Your task to perform on an android device: Open the phone app and click the voicemail tab. Image 0: 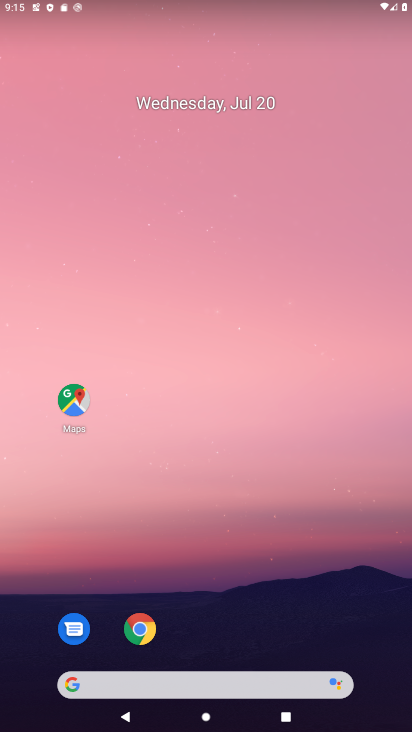
Step 0: drag from (284, 696) to (292, 5)
Your task to perform on an android device: Open the phone app and click the voicemail tab. Image 1: 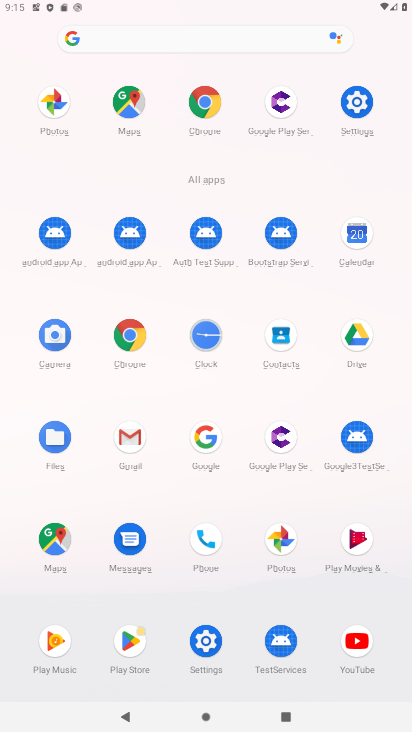
Step 1: click (222, 530)
Your task to perform on an android device: Open the phone app and click the voicemail tab. Image 2: 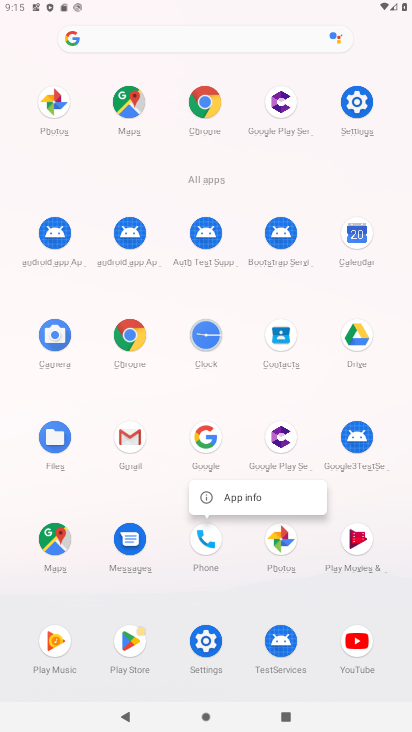
Step 2: click (222, 530)
Your task to perform on an android device: Open the phone app and click the voicemail tab. Image 3: 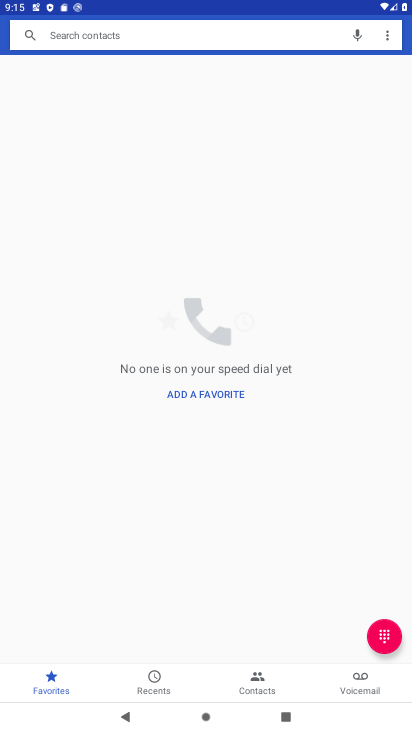
Step 3: click (354, 684)
Your task to perform on an android device: Open the phone app and click the voicemail tab. Image 4: 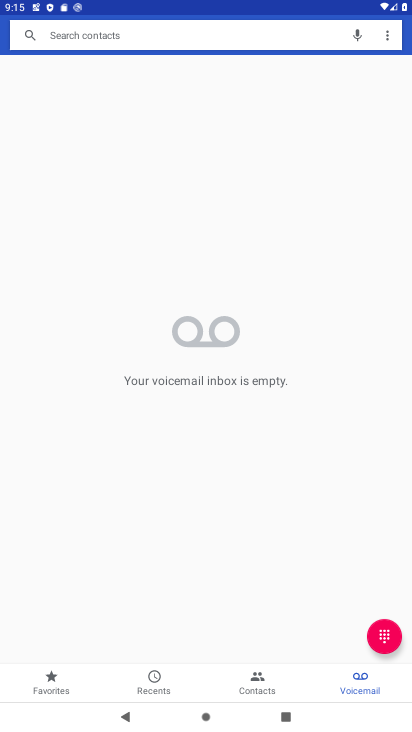
Step 4: task complete